Your task to perform on an android device: Open privacy settings Image 0: 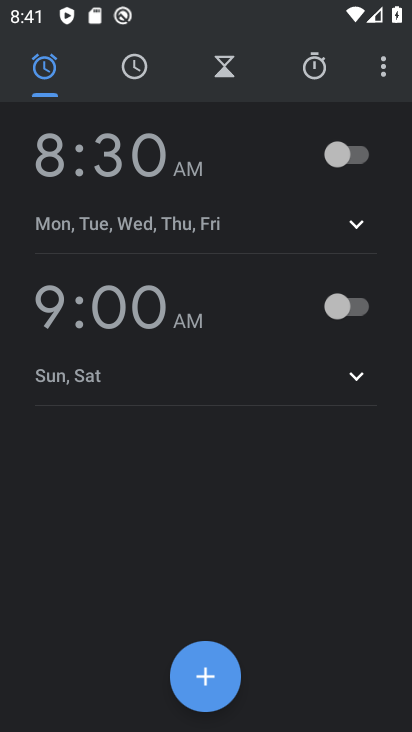
Step 0: press home button
Your task to perform on an android device: Open privacy settings Image 1: 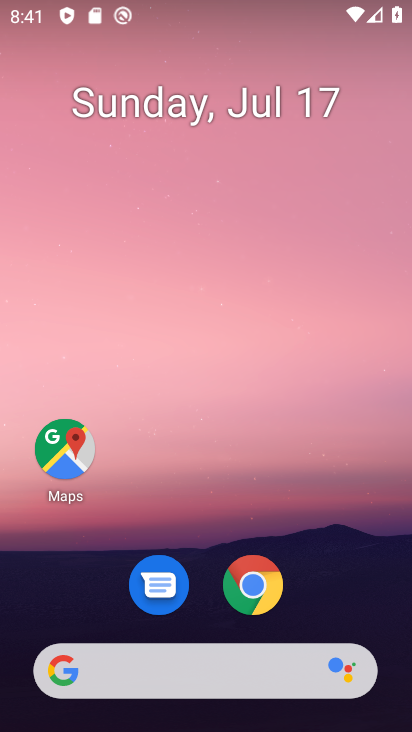
Step 1: drag from (181, 667) to (321, 13)
Your task to perform on an android device: Open privacy settings Image 2: 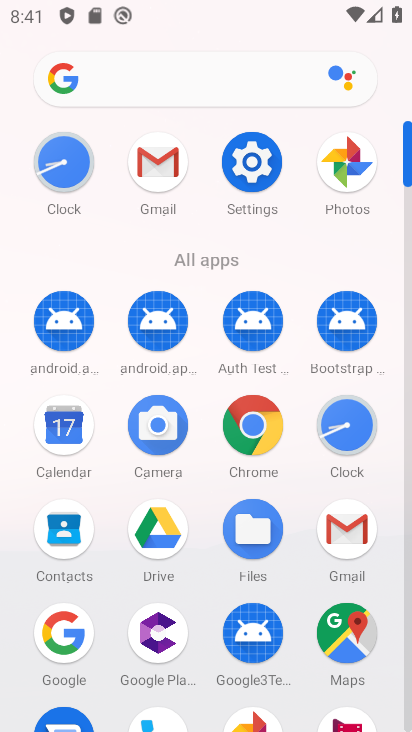
Step 2: click (257, 161)
Your task to perform on an android device: Open privacy settings Image 3: 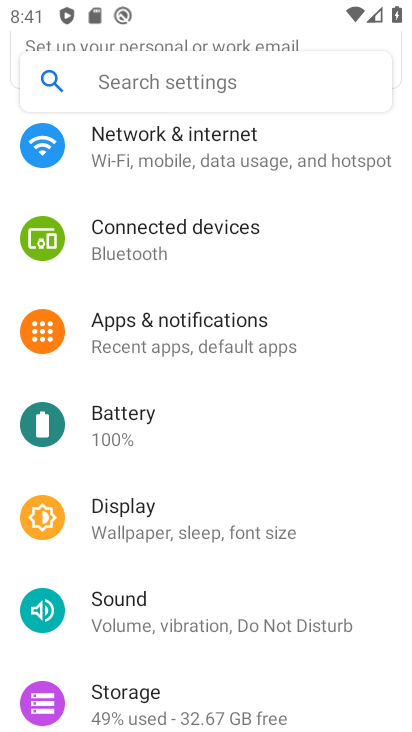
Step 3: drag from (215, 621) to (333, 230)
Your task to perform on an android device: Open privacy settings Image 4: 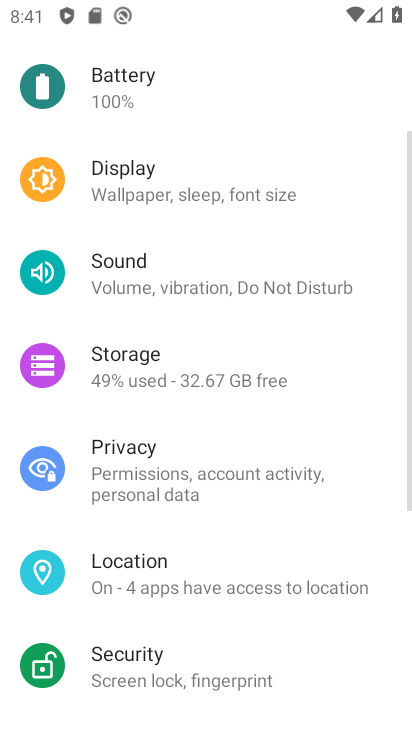
Step 4: click (183, 475)
Your task to perform on an android device: Open privacy settings Image 5: 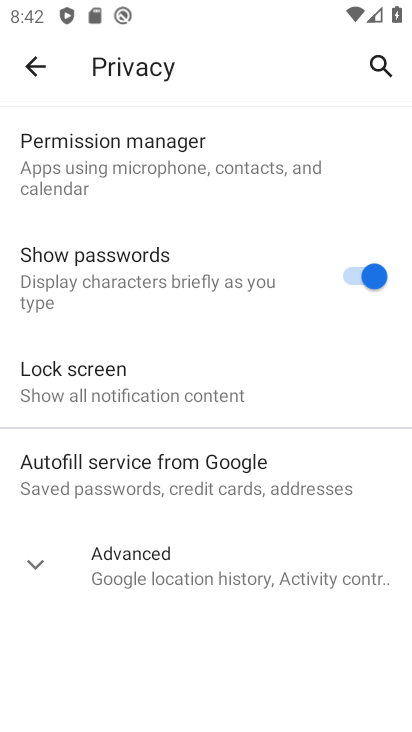
Step 5: task complete